Your task to perform on an android device: Search for seafood restaurants on Google Maps Image 0: 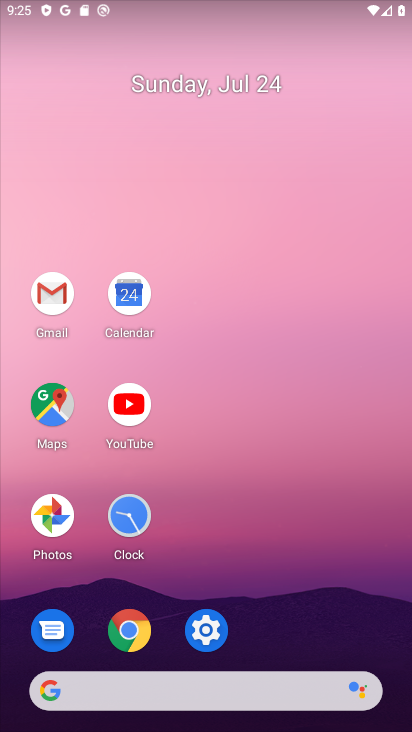
Step 0: click (49, 403)
Your task to perform on an android device: Search for seafood restaurants on Google Maps Image 1: 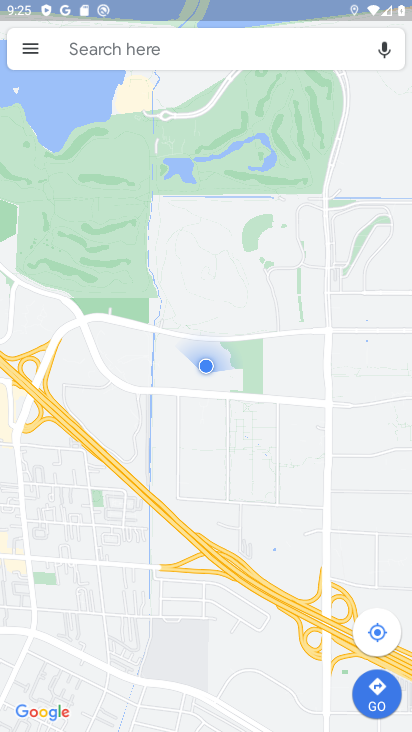
Step 1: click (118, 43)
Your task to perform on an android device: Search for seafood restaurants on Google Maps Image 2: 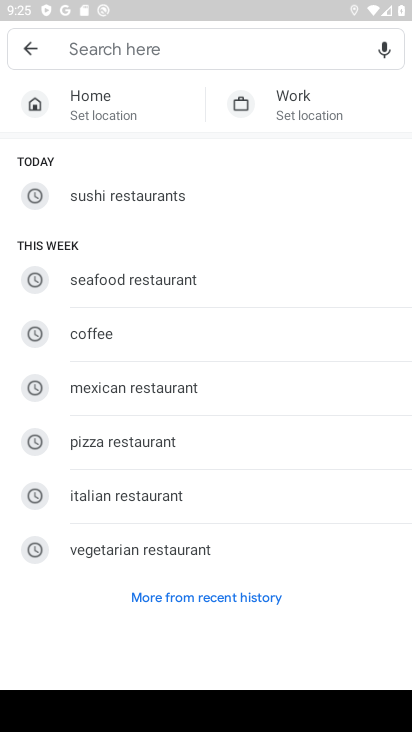
Step 2: click (143, 276)
Your task to perform on an android device: Search for seafood restaurants on Google Maps Image 3: 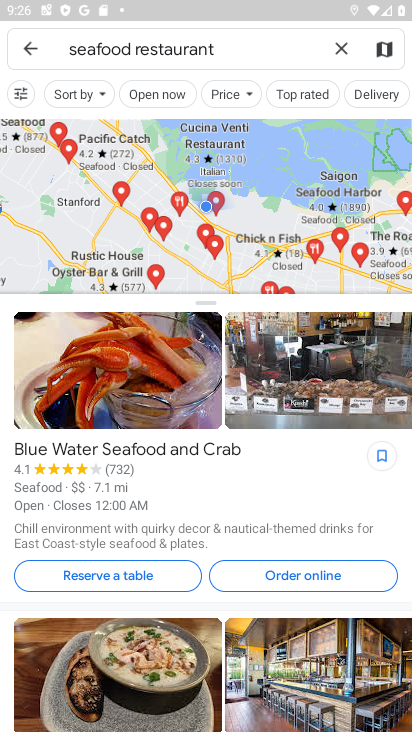
Step 3: task complete